Your task to perform on an android device: move an email to a new category in the gmail app Image 0: 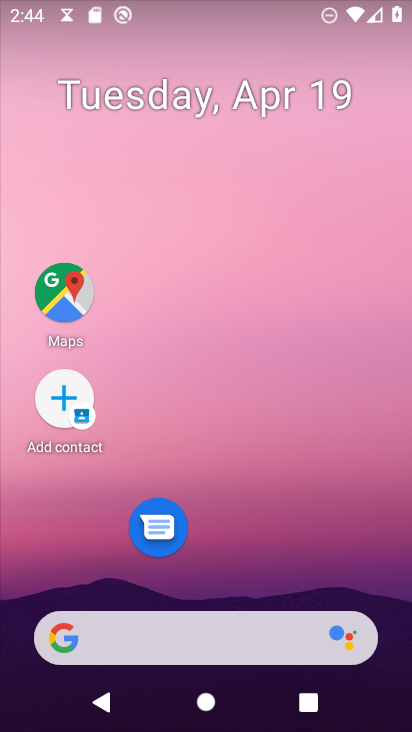
Step 0: drag from (265, 563) to (254, 152)
Your task to perform on an android device: move an email to a new category in the gmail app Image 1: 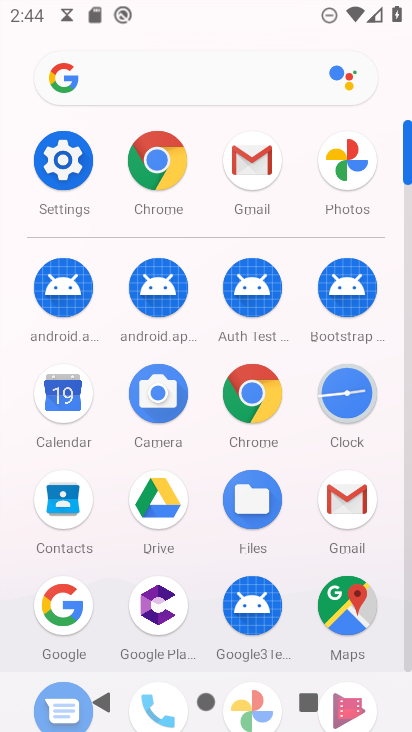
Step 1: click (249, 164)
Your task to perform on an android device: move an email to a new category in the gmail app Image 2: 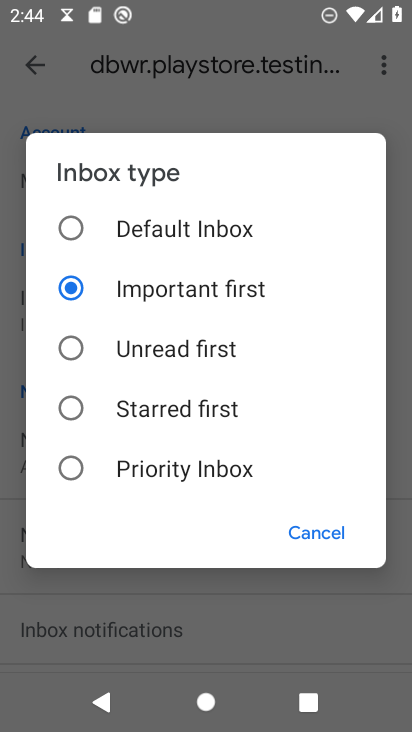
Step 2: click (317, 531)
Your task to perform on an android device: move an email to a new category in the gmail app Image 3: 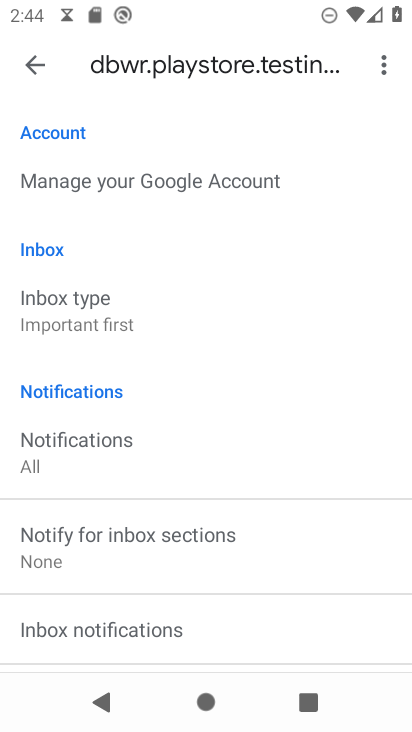
Step 3: press back button
Your task to perform on an android device: move an email to a new category in the gmail app Image 4: 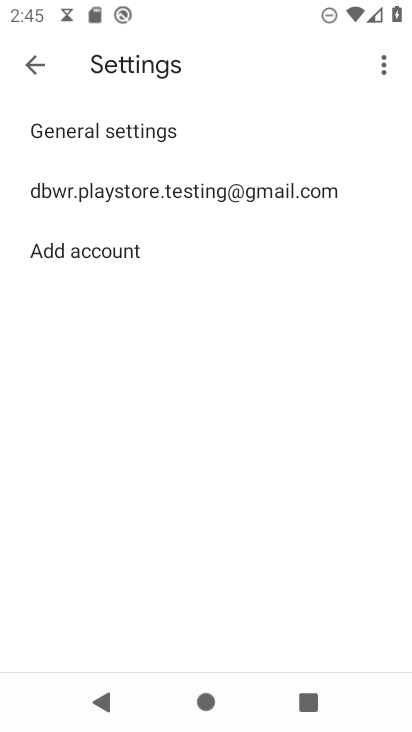
Step 4: press back button
Your task to perform on an android device: move an email to a new category in the gmail app Image 5: 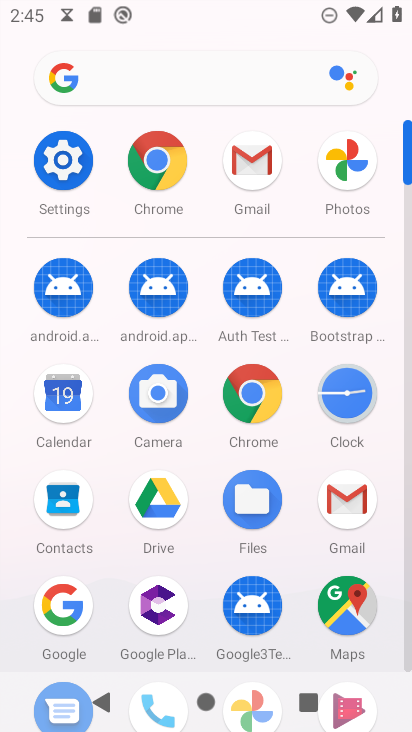
Step 5: click (253, 164)
Your task to perform on an android device: move an email to a new category in the gmail app Image 6: 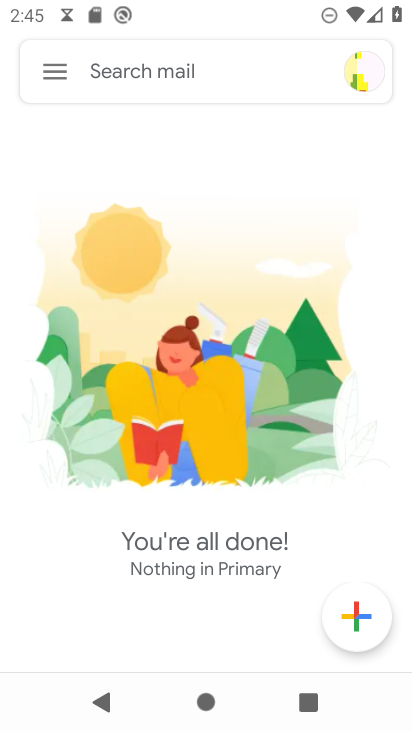
Step 6: click (51, 67)
Your task to perform on an android device: move an email to a new category in the gmail app Image 7: 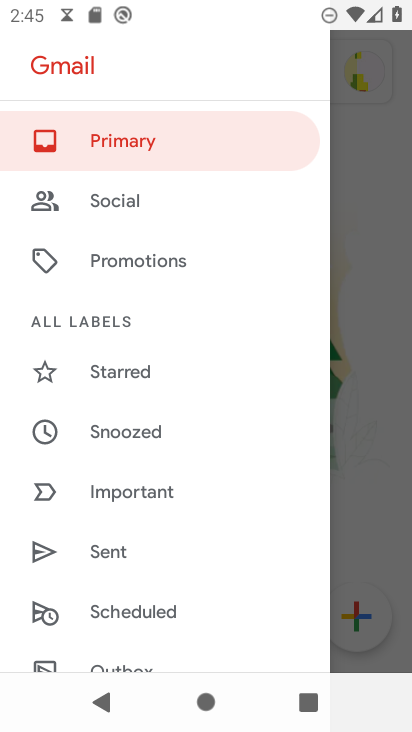
Step 7: drag from (135, 545) to (130, 468)
Your task to perform on an android device: move an email to a new category in the gmail app Image 8: 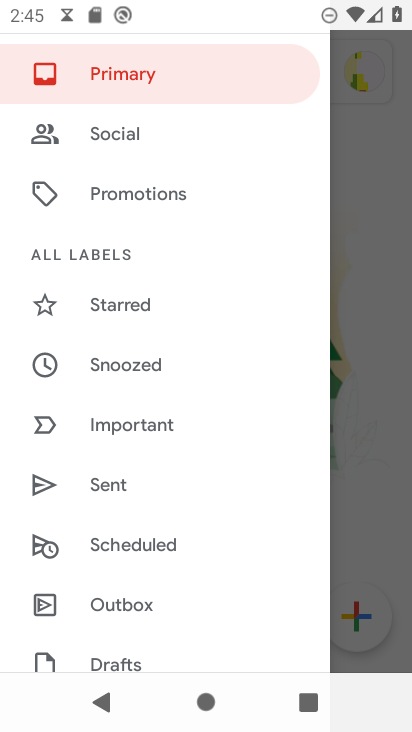
Step 8: drag from (140, 531) to (130, 465)
Your task to perform on an android device: move an email to a new category in the gmail app Image 9: 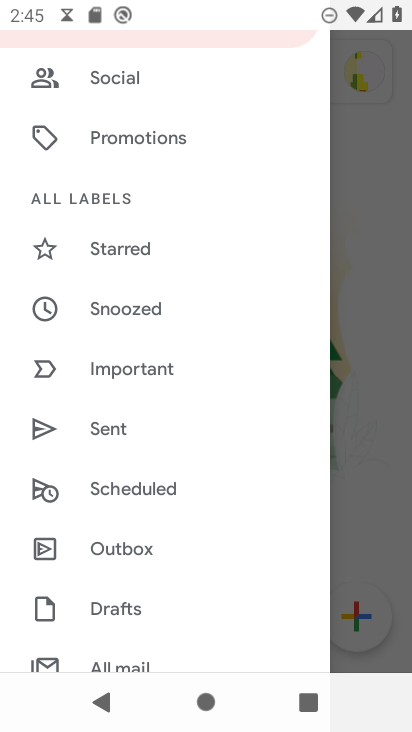
Step 9: drag from (152, 548) to (158, 471)
Your task to perform on an android device: move an email to a new category in the gmail app Image 10: 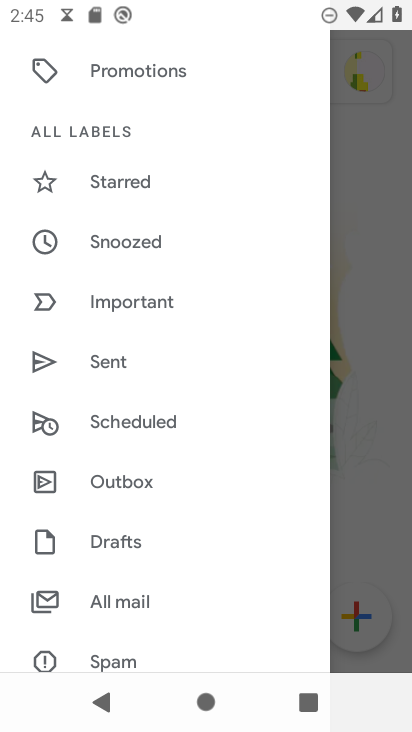
Step 10: click (144, 604)
Your task to perform on an android device: move an email to a new category in the gmail app Image 11: 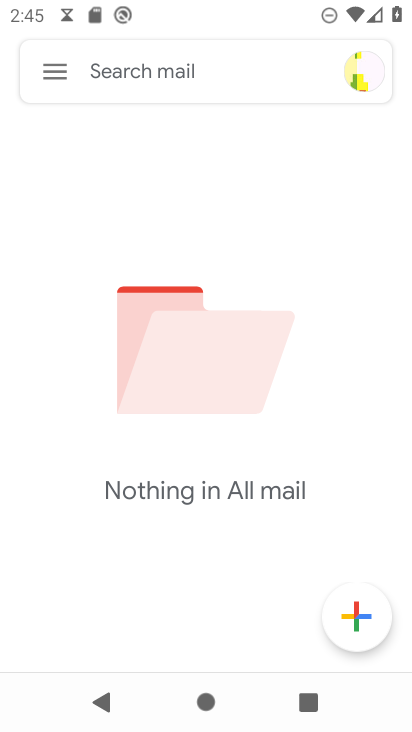
Step 11: task complete